Your task to perform on an android device: Is it going to rain tomorrow? Image 0: 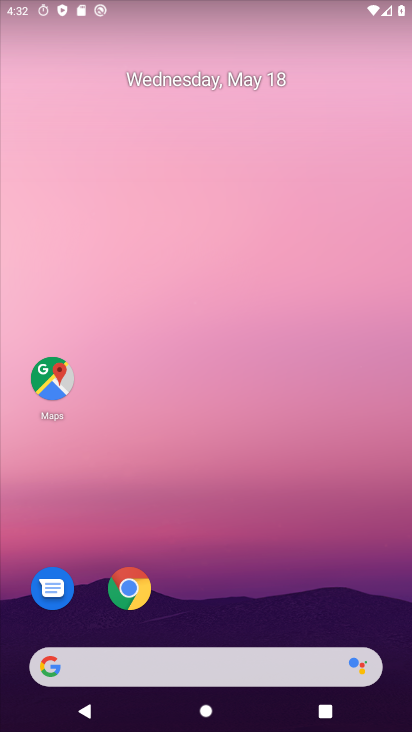
Step 0: click (134, 593)
Your task to perform on an android device: Is it going to rain tomorrow? Image 1: 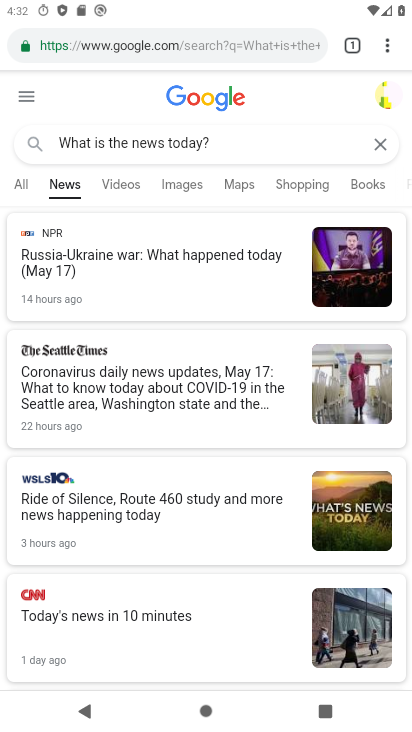
Step 1: click (301, 48)
Your task to perform on an android device: Is it going to rain tomorrow? Image 2: 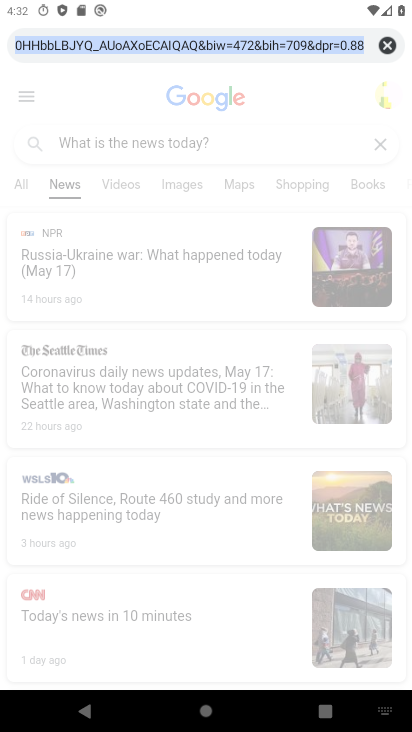
Step 2: click (384, 48)
Your task to perform on an android device: Is it going to rain tomorrow? Image 3: 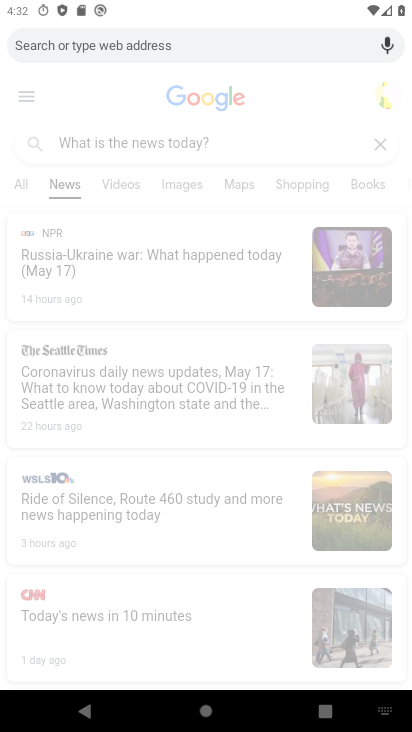
Step 3: type "Is it going to rain tomorrow?"
Your task to perform on an android device: Is it going to rain tomorrow? Image 4: 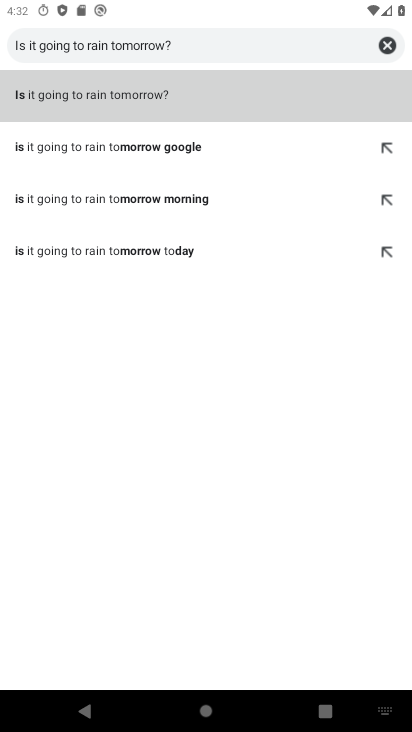
Step 4: click (106, 90)
Your task to perform on an android device: Is it going to rain tomorrow? Image 5: 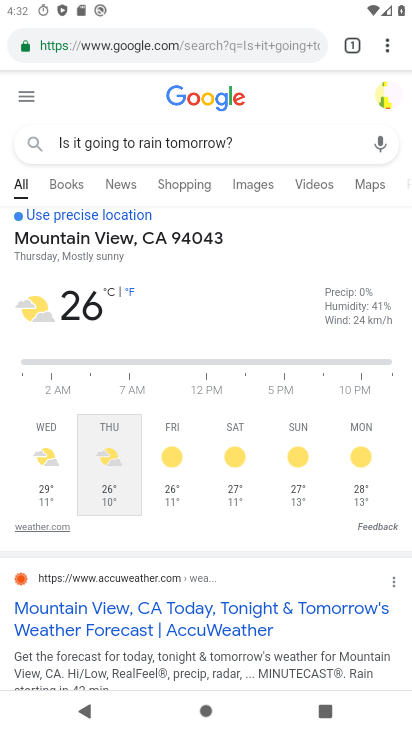
Step 5: task complete